Your task to perform on an android device: Search for sushi restaurants on Maps Image 0: 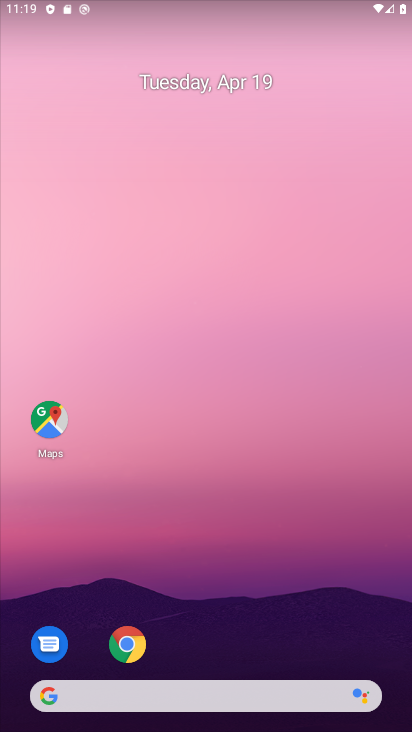
Step 0: drag from (200, 726) to (200, 100)
Your task to perform on an android device: Search for sushi restaurants on Maps Image 1: 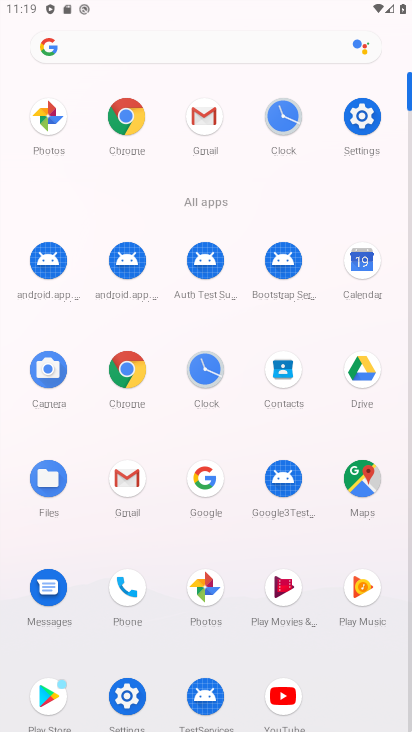
Step 1: click (365, 469)
Your task to perform on an android device: Search for sushi restaurants on Maps Image 2: 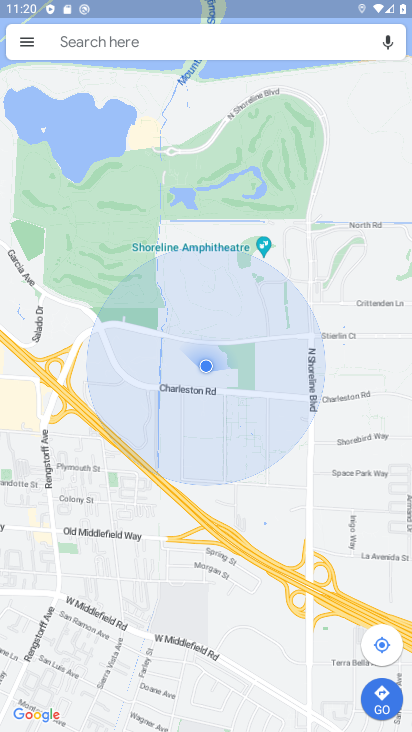
Step 2: click (201, 44)
Your task to perform on an android device: Search for sushi restaurants on Maps Image 3: 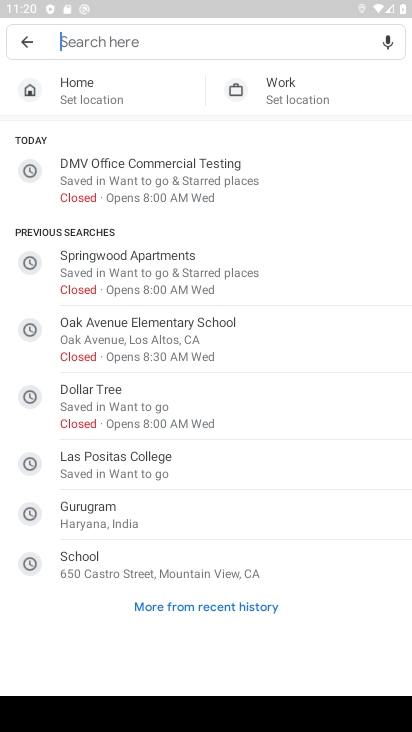
Step 3: type "sushi restaurants"
Your task to perform on an android device: Search for sushi restaurants on Maps Image 4: 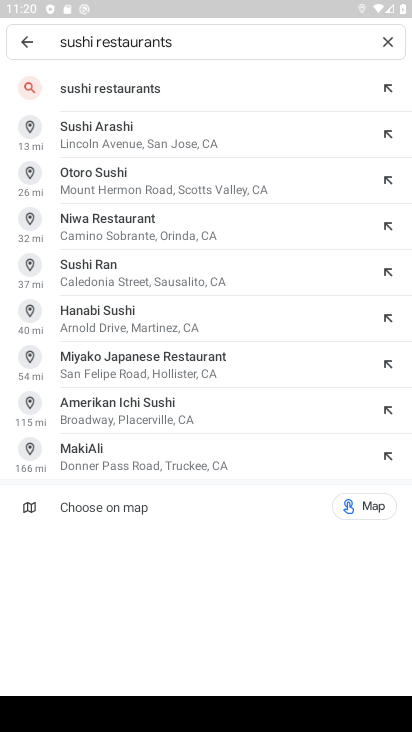
Step 4: click (139, 81)
Your task to perform on an android device: Search for sushi restaurants on Maps Image 5: 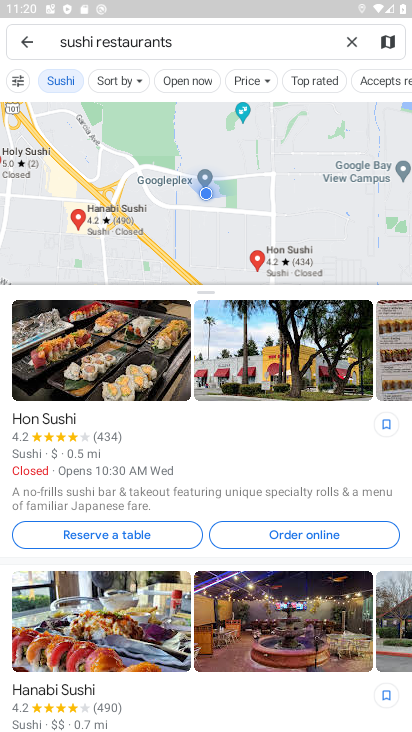
Step 5: task complete